Your task to perform on an android device: Open Google Chrome and click the shortcut for Amazon.com Image 0: 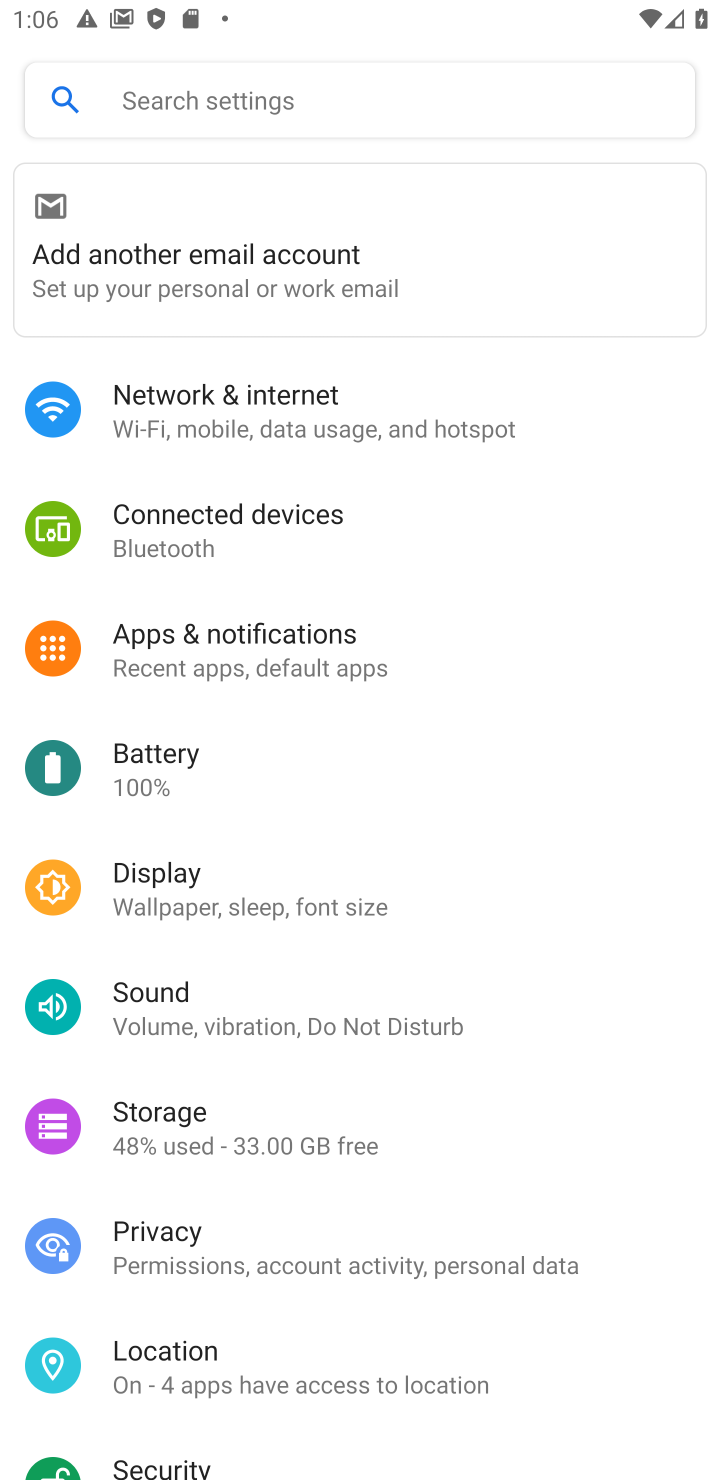
Step 0: press home button
Your task to perform on an android device: Open Google Chrome and click the shortcut for Amazon.com Image 1: 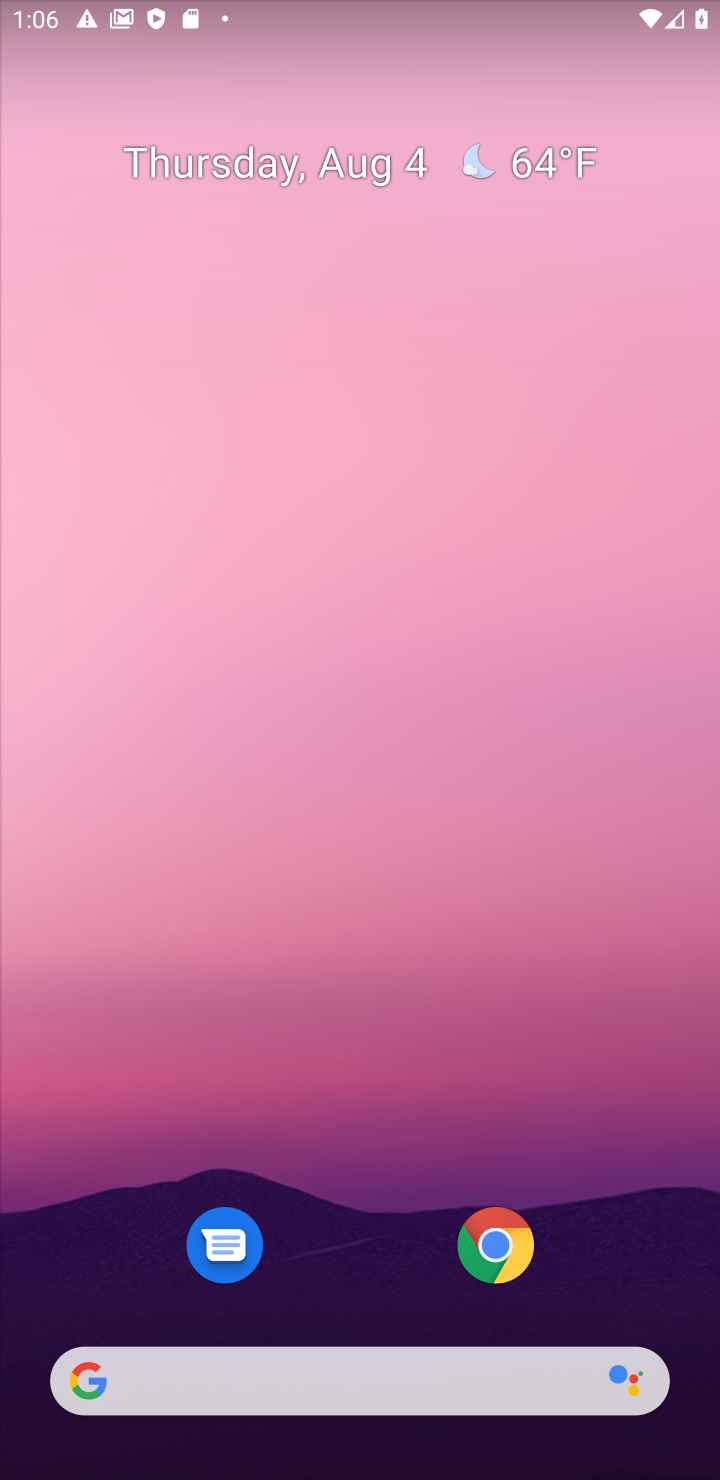
Step 1: click (506, 1223)
Your task to perform on an android device: Open Google Chrome and click the shortcut for Amazon.com Image 2: 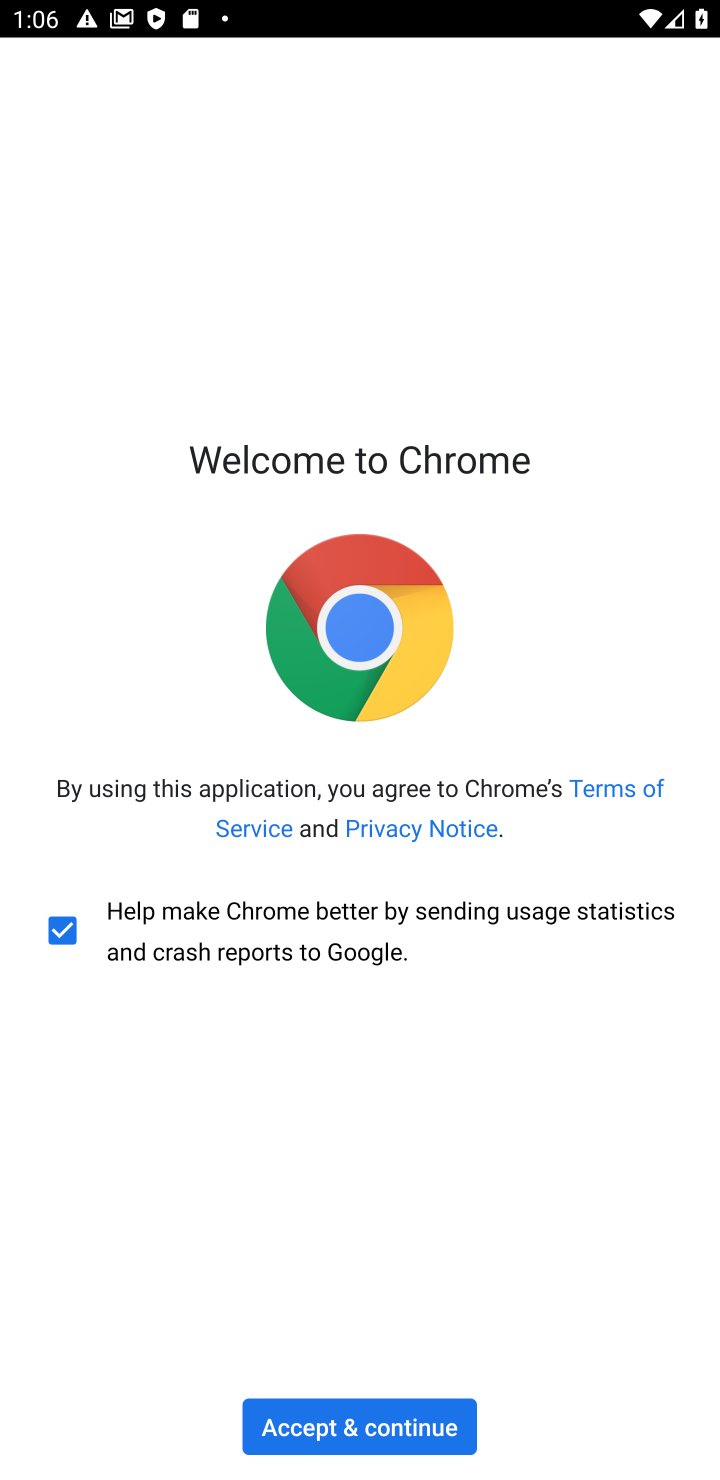
Step 2: click (336, 1438)
Your task to perform on an android device: Open Google Chrome and click the shortcut for Amazon.com Image 3: 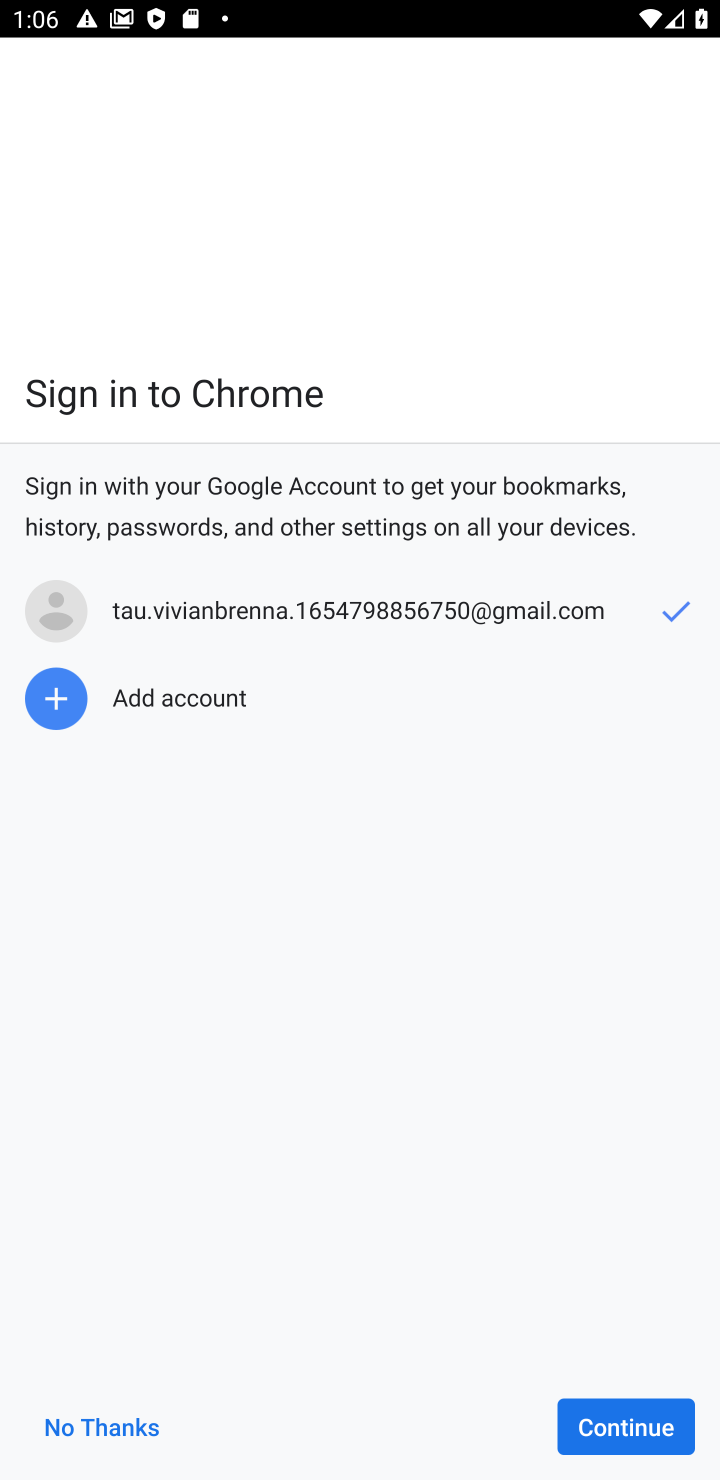
Step 3: click (635, 1409)
Your task to perform on an android device: Open Google Chrome and click the shortcut for Amazon.com Image 4: 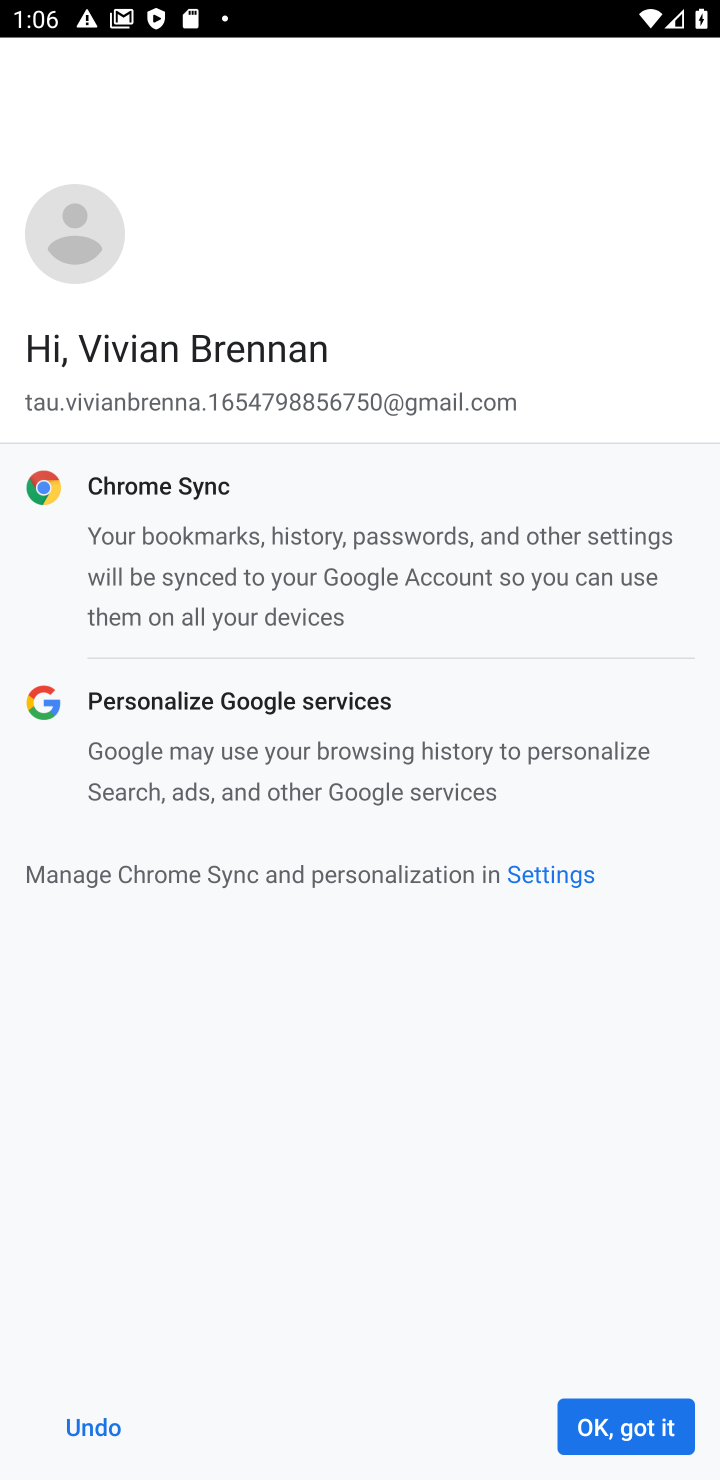
Step 4: click (635, 1409)
Your task to perform on an android device: Open Google Chrome and click the shortcut for Amazon.com Image 5: 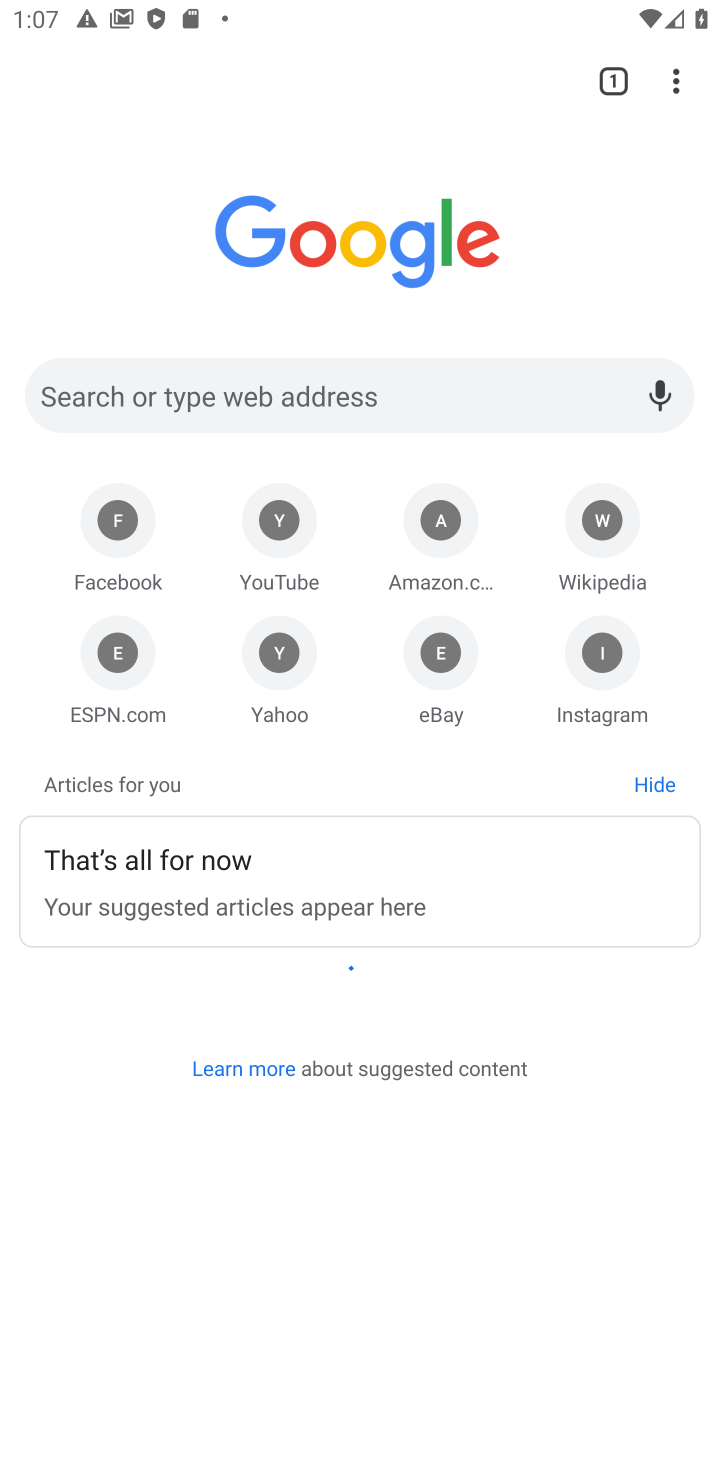
Step 5: click (437, 522)
Your task to perform on an android device: Open Google Chrome and click the shortcut for Amazon.com Image 6: 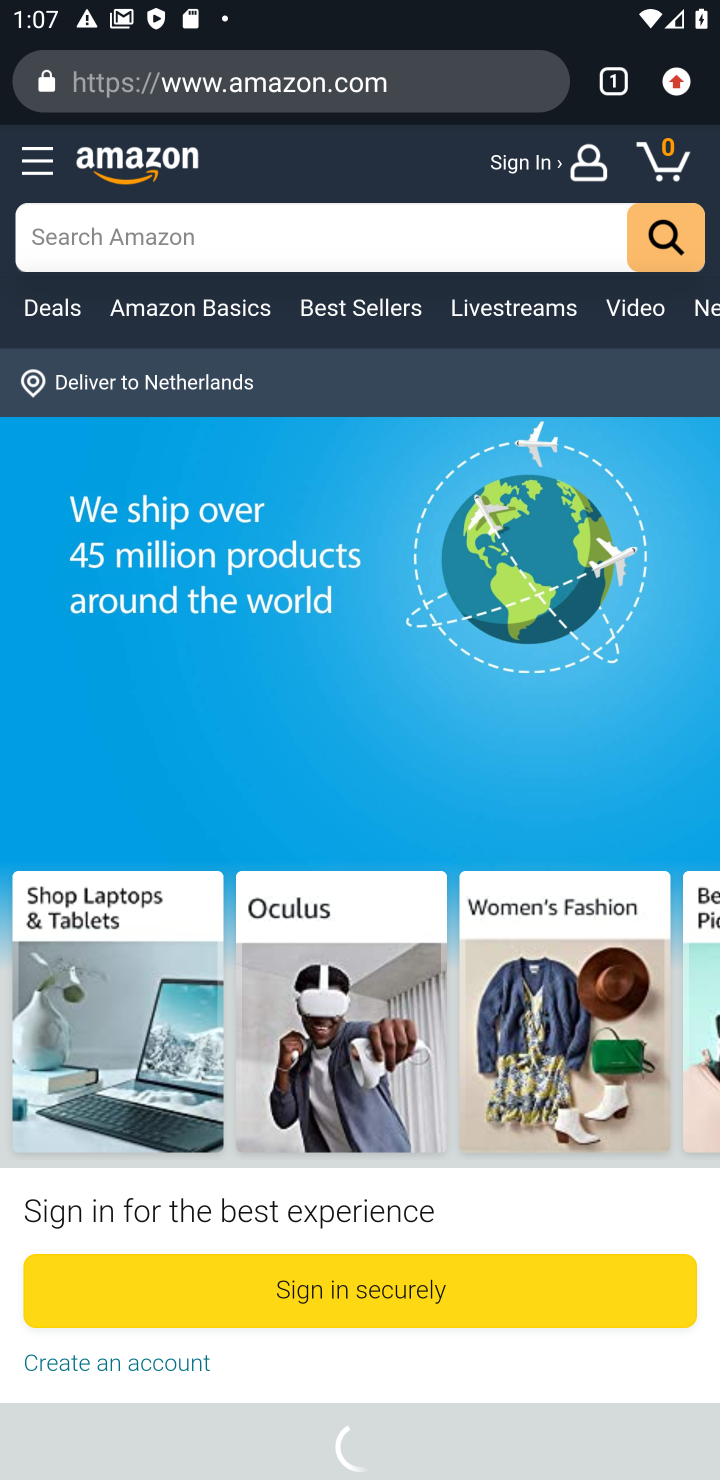
Step 6: task complete